Your task to perform on an android device: Search for apple airpods pro on costco, select the first entry, and add it to the cart. Image 0: 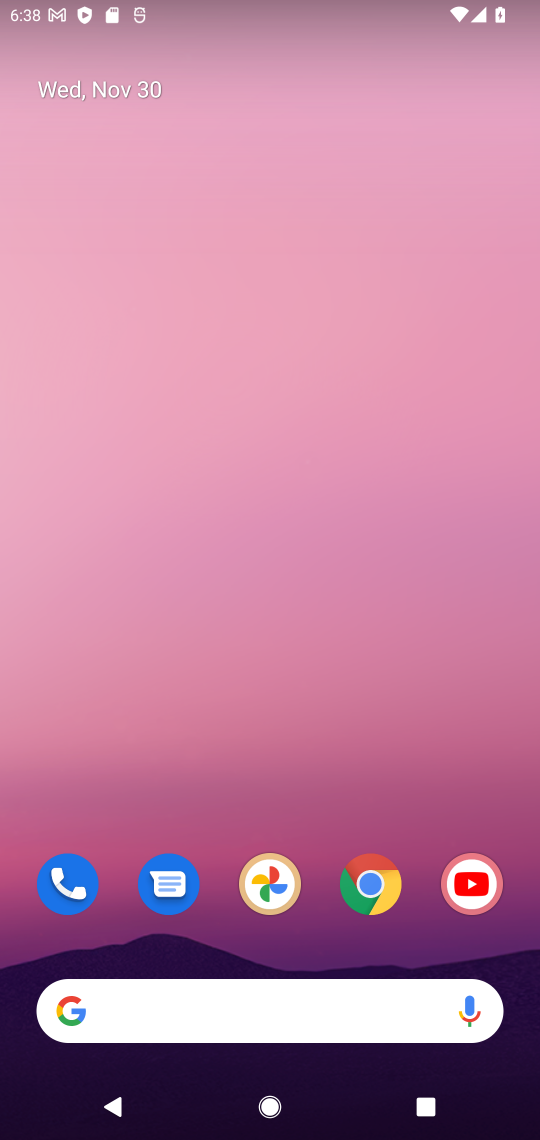
Step 0: click (371, 884)
Your task to perform on an android device: Search for apple airpods pro on costco, select the first entry, and add it to the cart. Image 1: 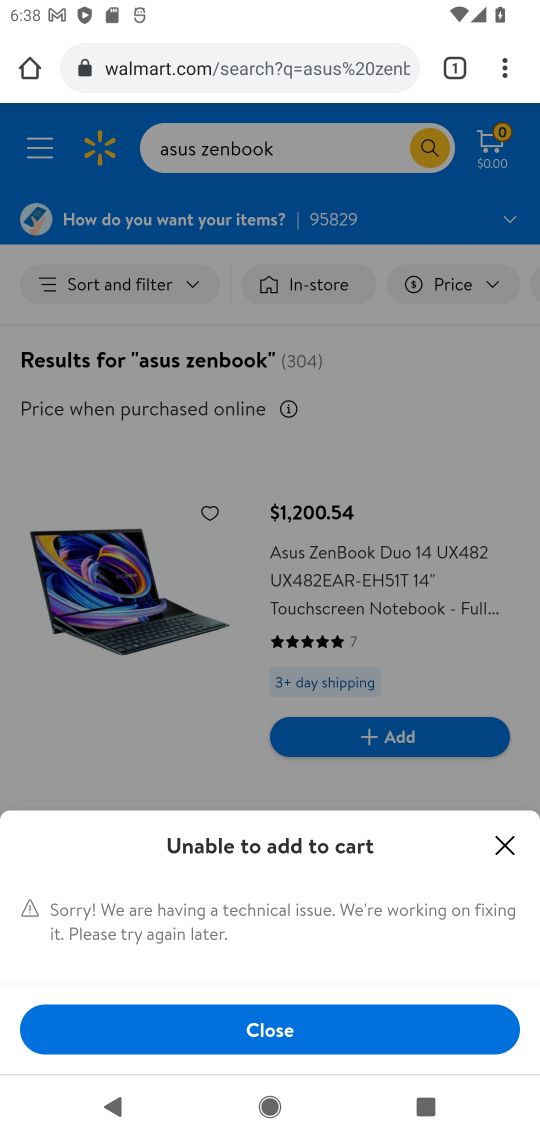
Step 1: click (191, 72)
Your task to perform on an android device: Search for apple airpods pro on costco, select the first entry, and add it to the cart. Image 2: 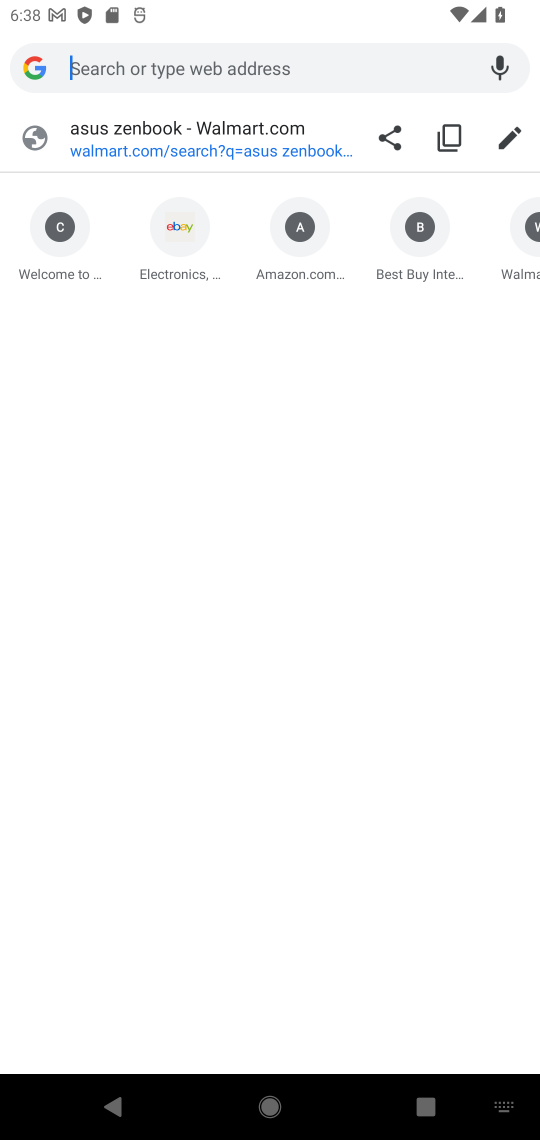
Step 2: type "costco.com"
Your task to perform on an android device: Search for apple airpods pro on costco, select the first entry, and add it to the cart. Image 3: 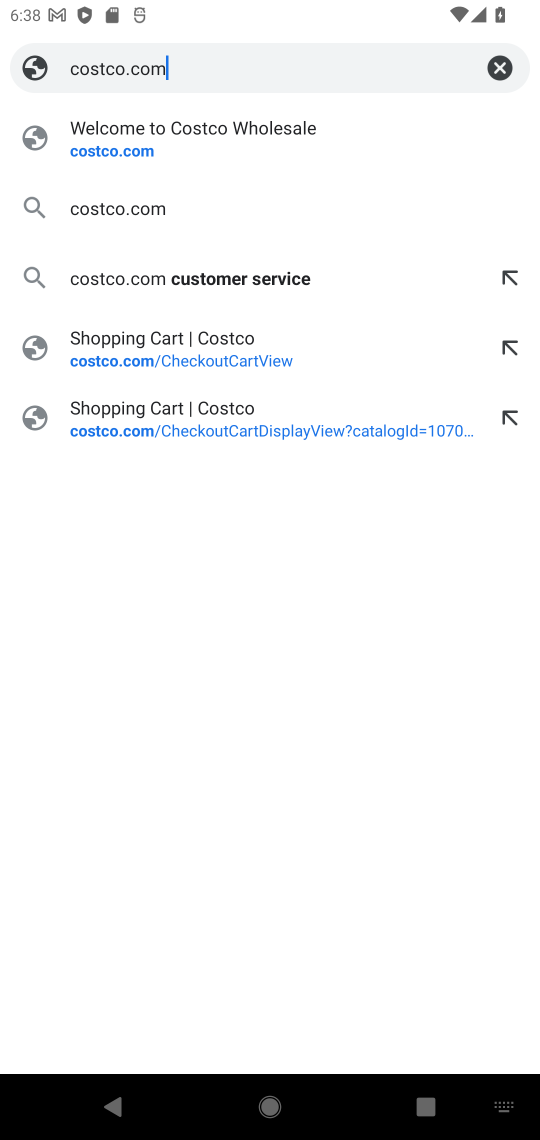
Step 3: click (116, 151)
Your task to perform on an android device: Search for apple airpods pro on costco, select the first entry, and add it to the cart. Image 4: 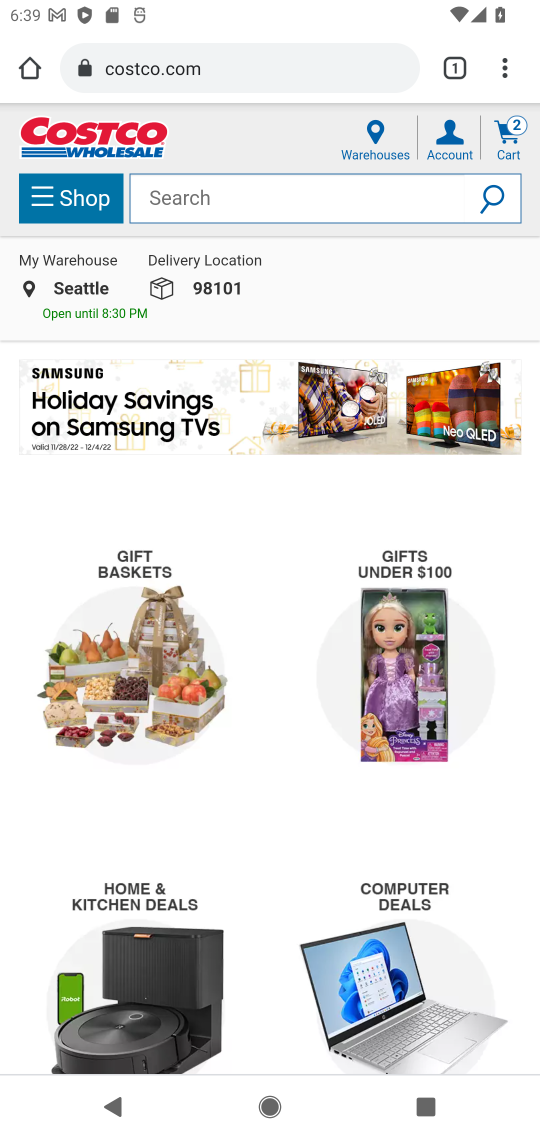
Step 4: click (225, 208)
Your task to perform on an android device: Search for apple airpods pro on costco, select the first entry, and add it to the cart. Image 5: 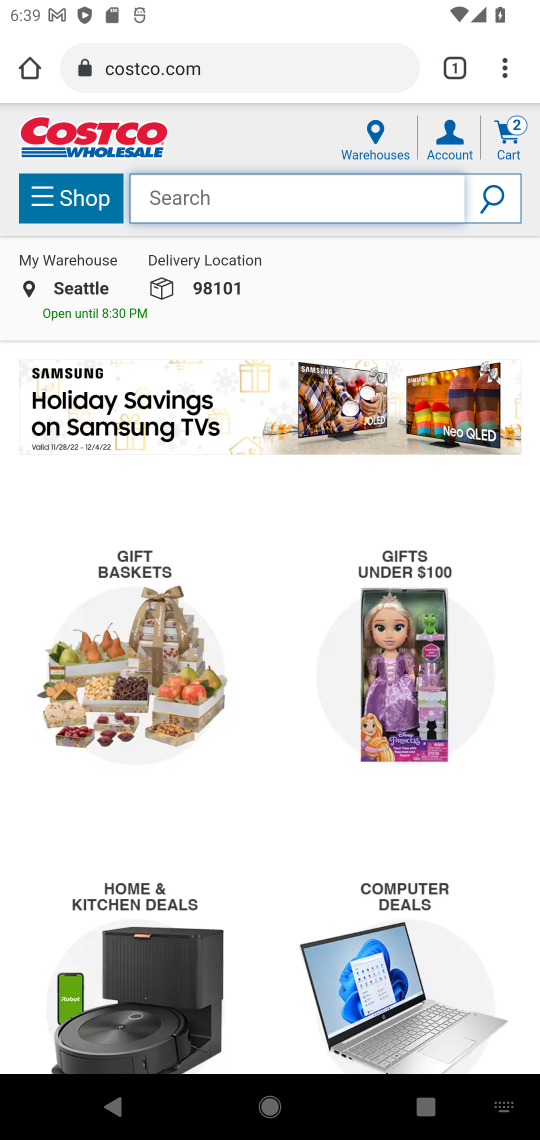
Step 5: type "apple airpods pro"
Your task to perform on an android device: Search for apple airpods pro on costco, select the first entry, and add it to the cart. Image 6: 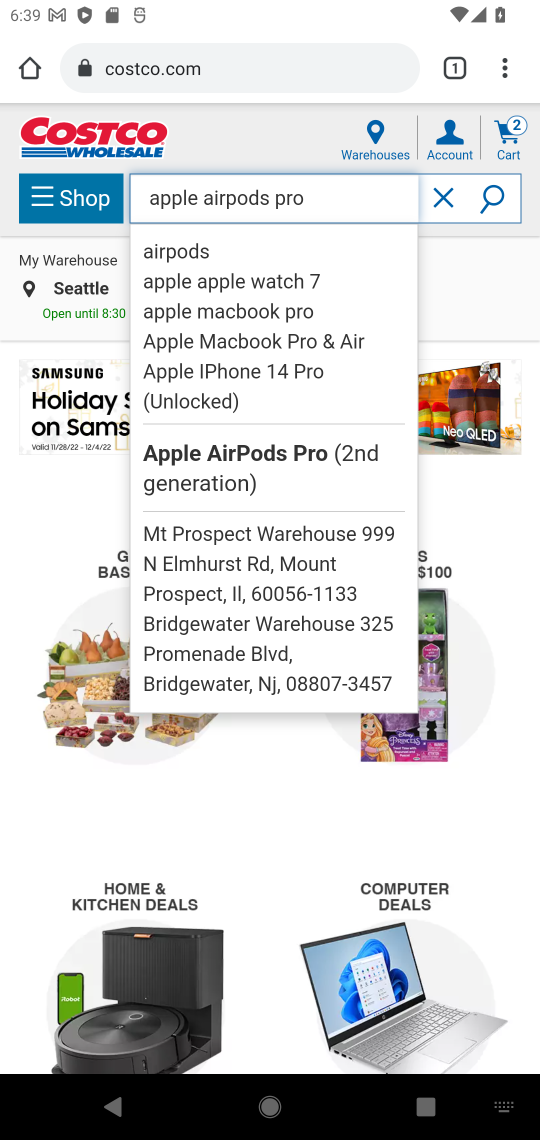
Step 6: click (489, 190)
Your task to perform on an android device: Search for apple airpods pro on costco, select the first entry, and add it to the cart. Image 7: 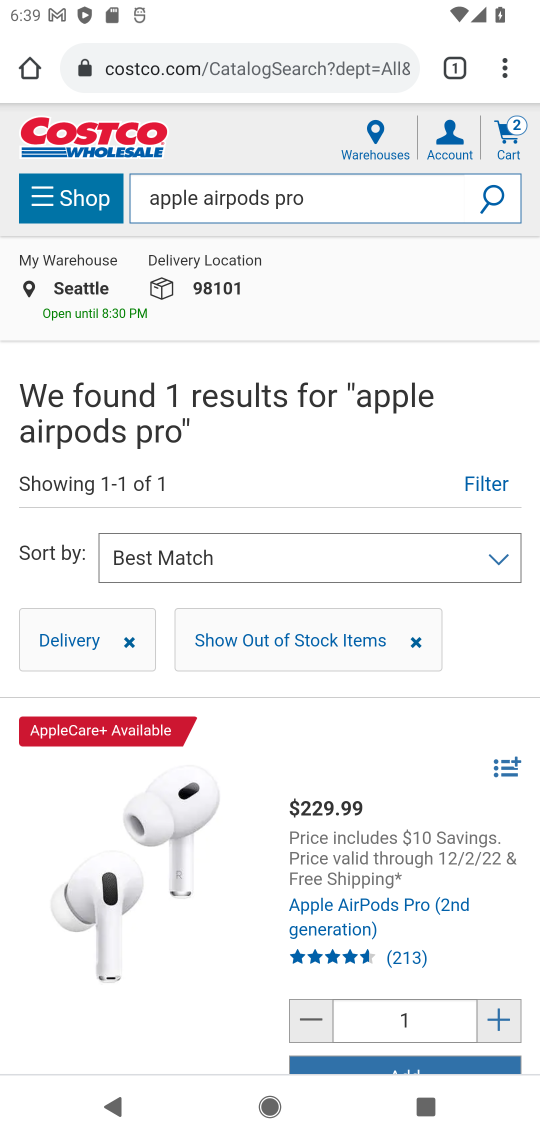
Step 7: drag from (247, 619) to (253, 299)
Your task to perform on an android device: Search for apple airpods pro on costco, select the first entry, and add it to the cart. Image 8: 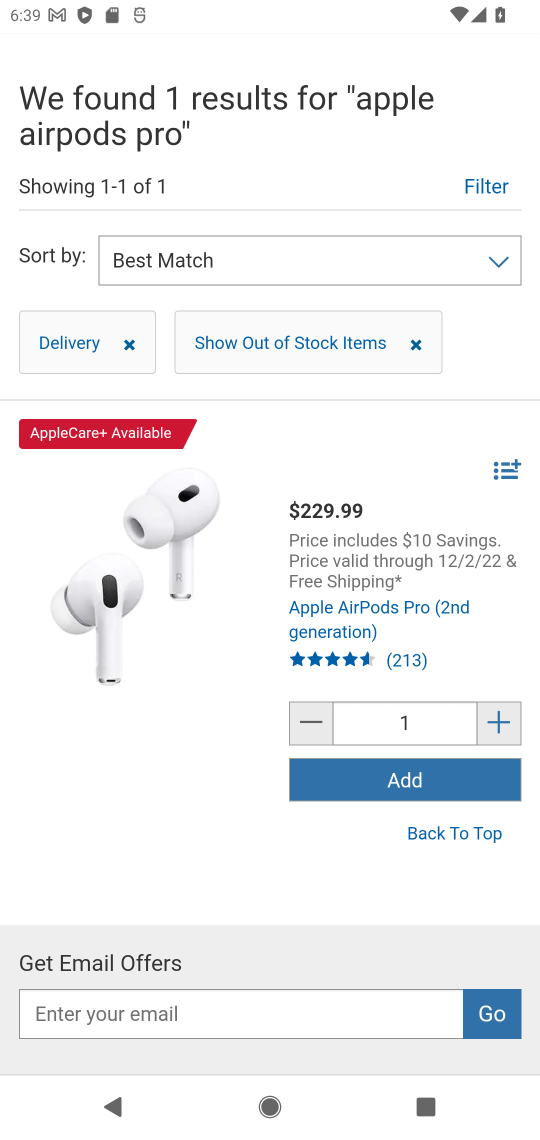
Step 8: click (376, 768)
Your task to perform on an android device: Search for apple airpods pro on costco, select the first entry, and add it to the cart. Image 9: 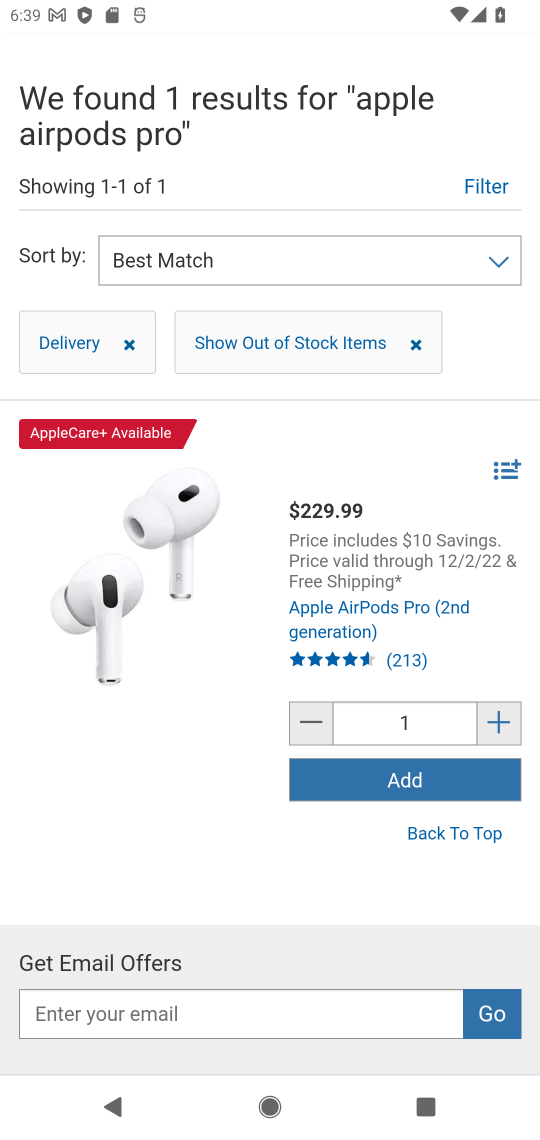
Step 9: task complete